Your task to perform on an android device: Go to Google Image 0: 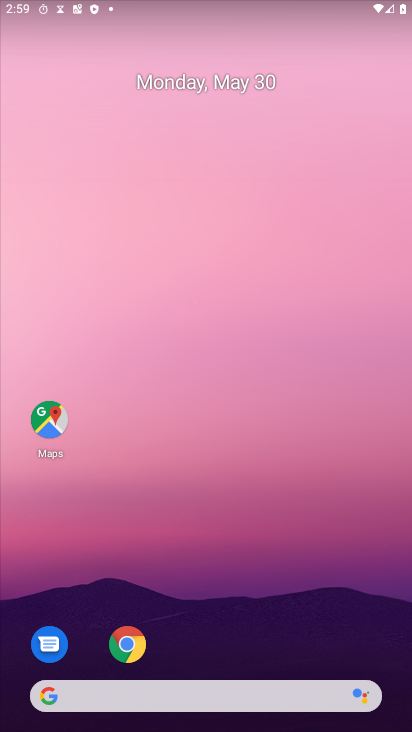
Step 0: press home button
Your task to perform on an android device: Go to Google Image 1: 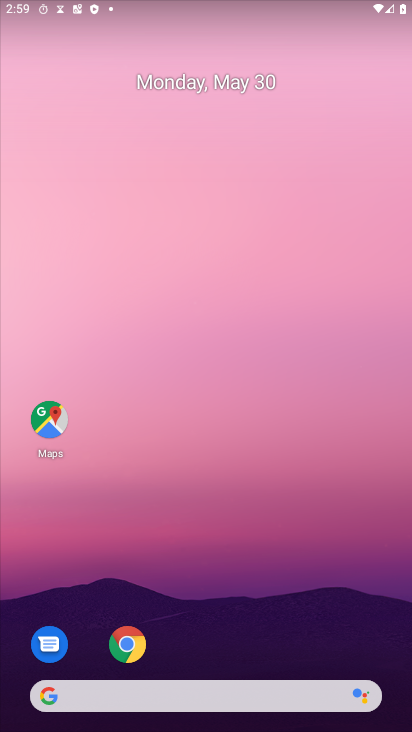
Step 1: click (49, 695)
Your task to perform on an android device: Go to Google Image 2: 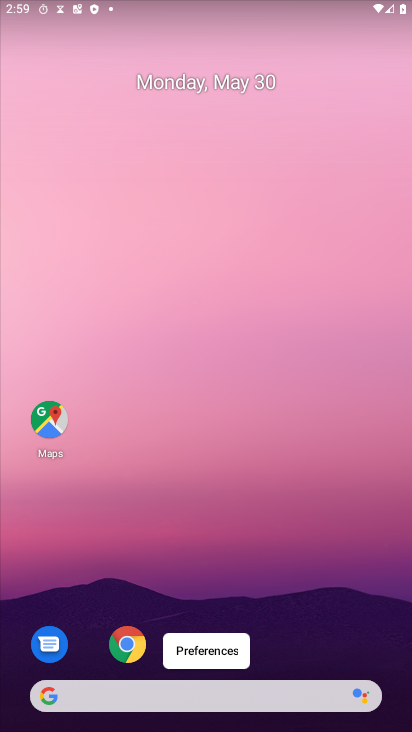
Step 2: click (47, 688)
Your task to perform on an android device: Go to Google Image 3: 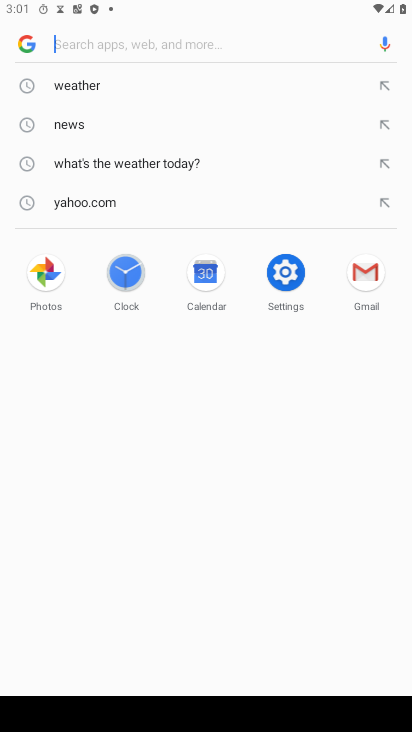
Step 3: task complete